Your task to perform on an android device: turn on bluetooth scan Image 0: 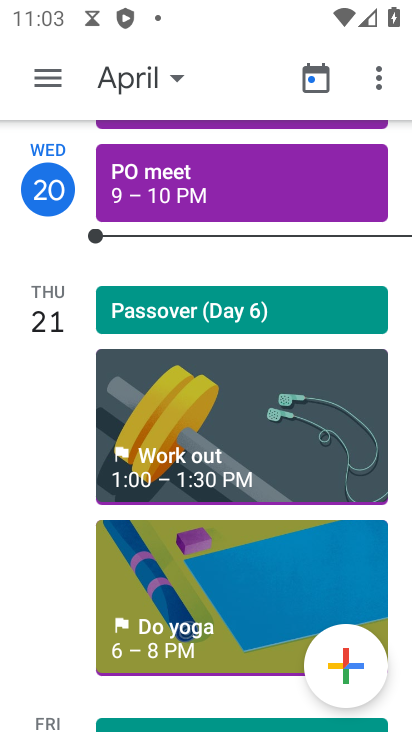
Step 0: press home button
Your task to perform on an android device: turn on bluetooth scan Image 1: 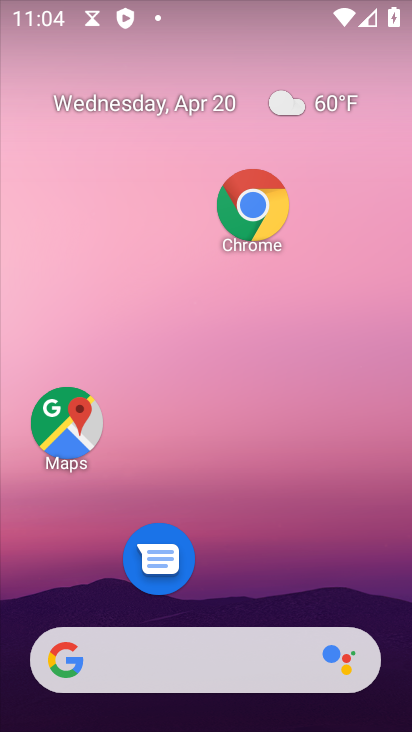
Step 1: drag from (166, 639) to (158, 46)
Your task to perform on an android device: turn on bluetooth scan Image 2: 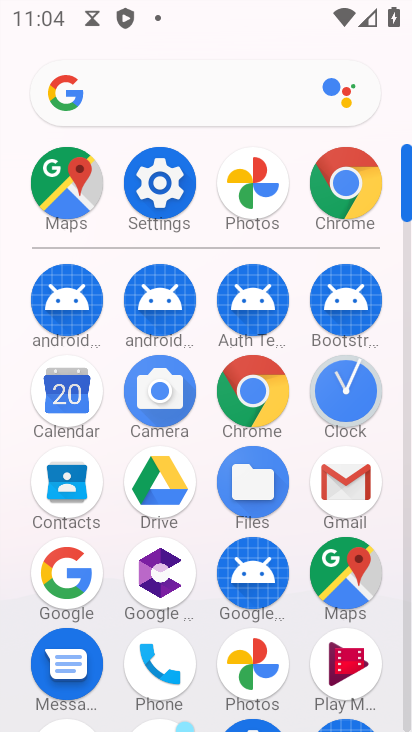
Step 2: drag from (207, 621) to (195, 146)
Your task to perform on an android device: turn on bluetooth scan Image 3: 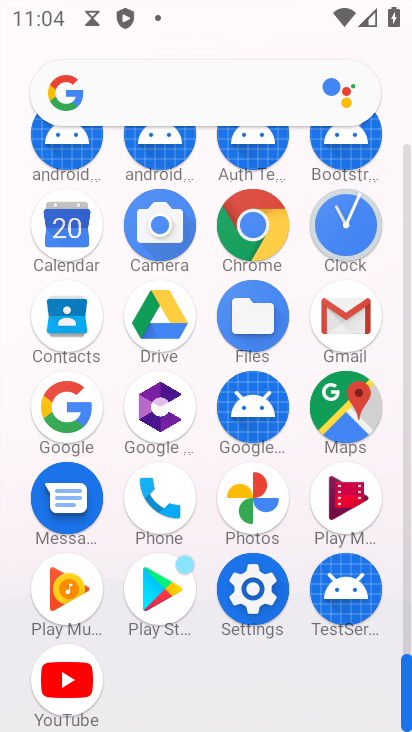
Step 3: click (263, 589)
Your task to perform on an android device: turn on bluetooth scan Image 4: 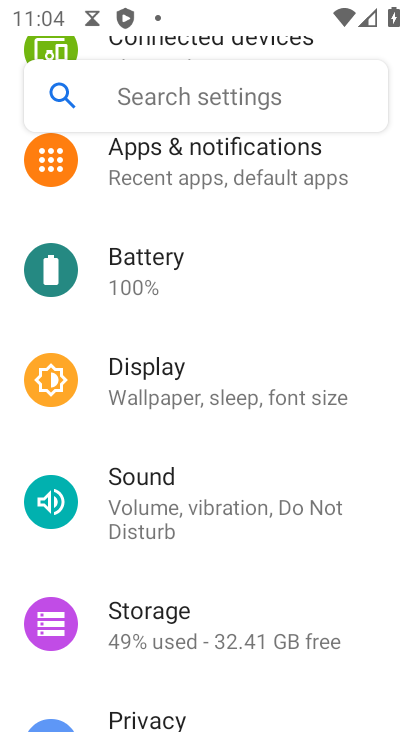
Step 4: drag from (248, 654) to (218, 200)
Your task to perform on an android device: turn on bluetooth scan Image 5: 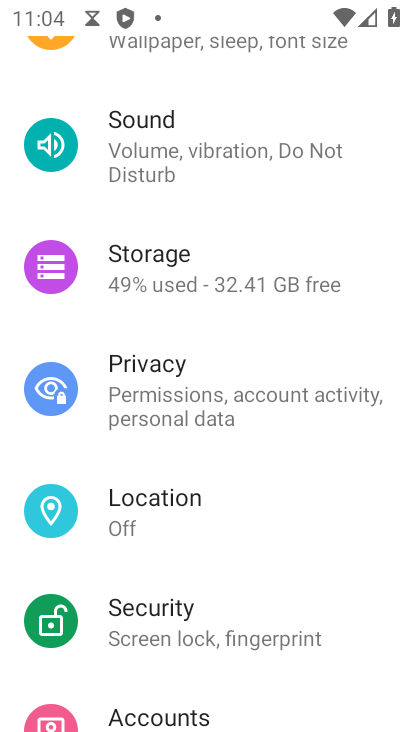
Step 5: click (233, 538)
Your task to perform on an android device: turn on bluetooth scan Image 6: 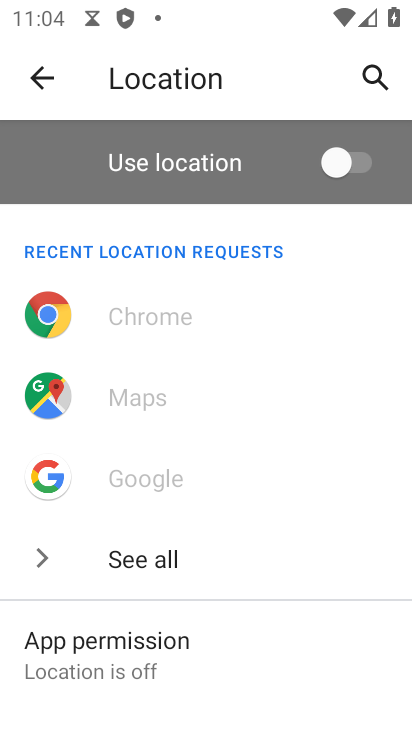
Step 6: drag from (181, 619) to (179, 188)
Your task to perform on an android device: turn on bluetooth scan Image 7: 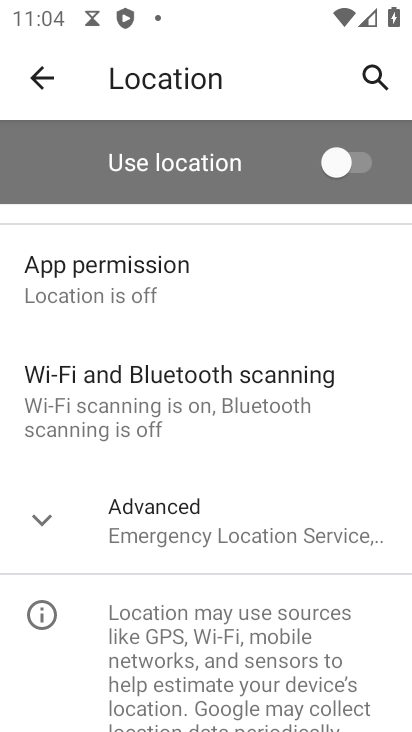
Step 7: click (225, 373)
Your task to perform on an android device: turn on bluetooth scan Image 8: 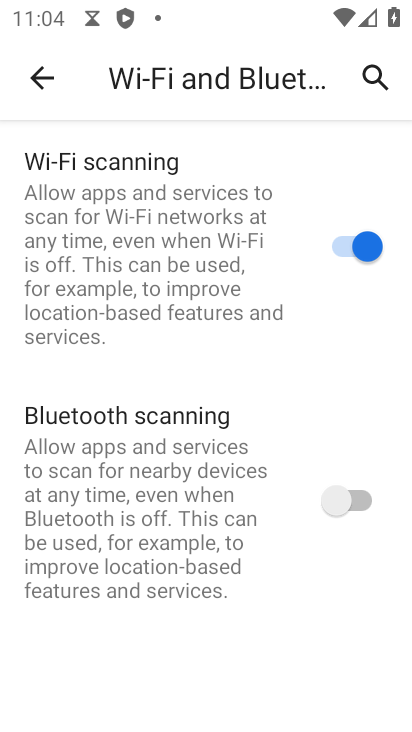
Step 8: click (357, 494)
Your task to perform on an android device: turn on bluetooth scan Image 9: 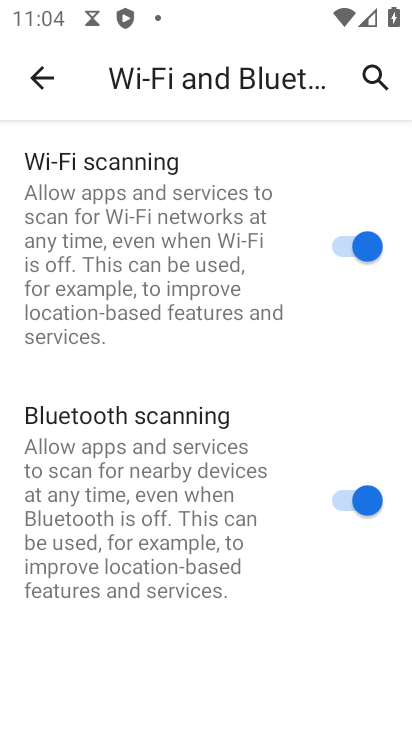
Step 9: task complete